Your task to perform on an android device: turn off translation in the chrome app Image 0: 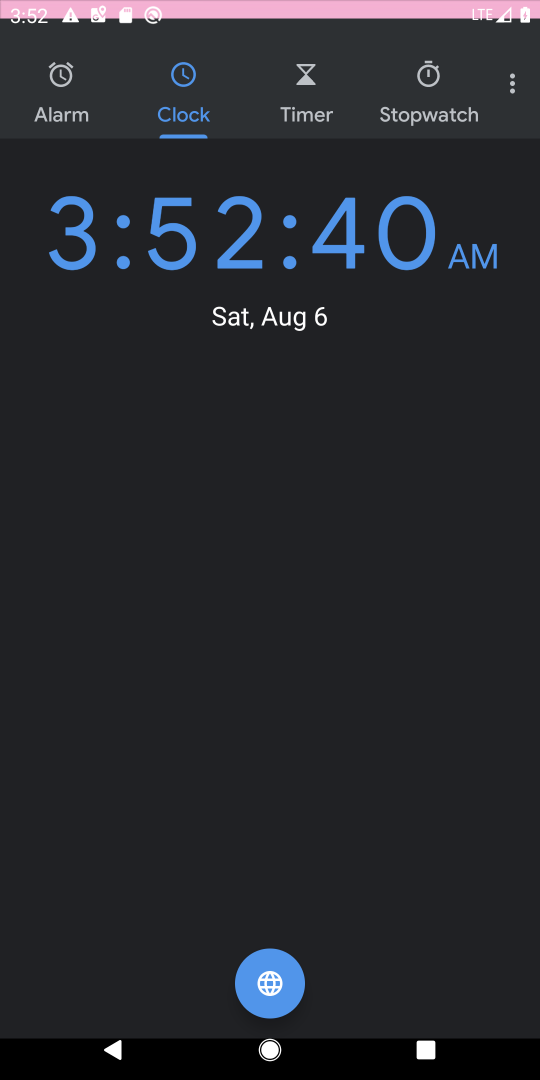
Step 0: press back button
Your task to perform on an android device: turn off translation in the chrome app Image 1: 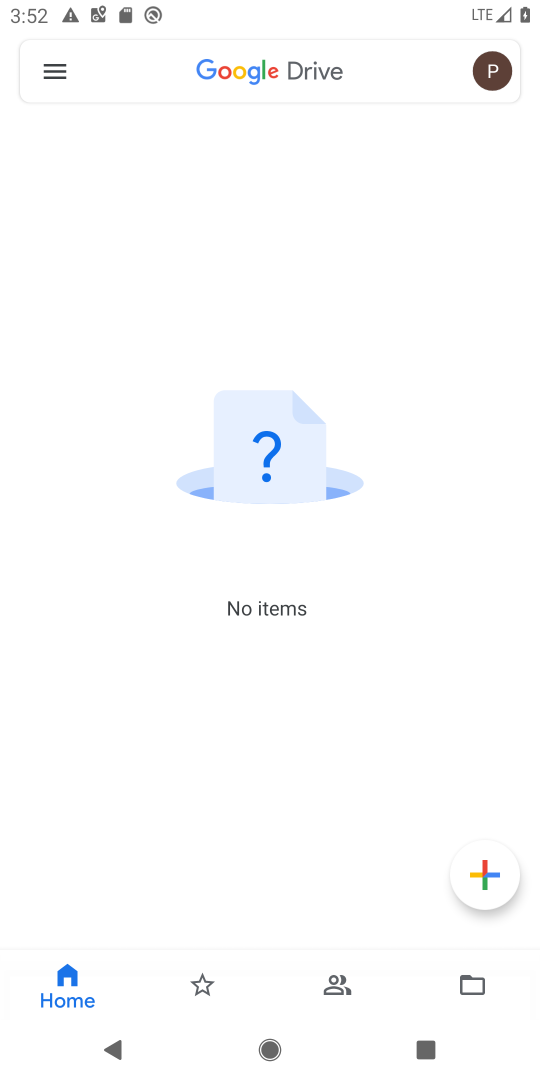
Step 1: press back button
Your task to perform on an android device: turn off translation in the chrome app Image 2: 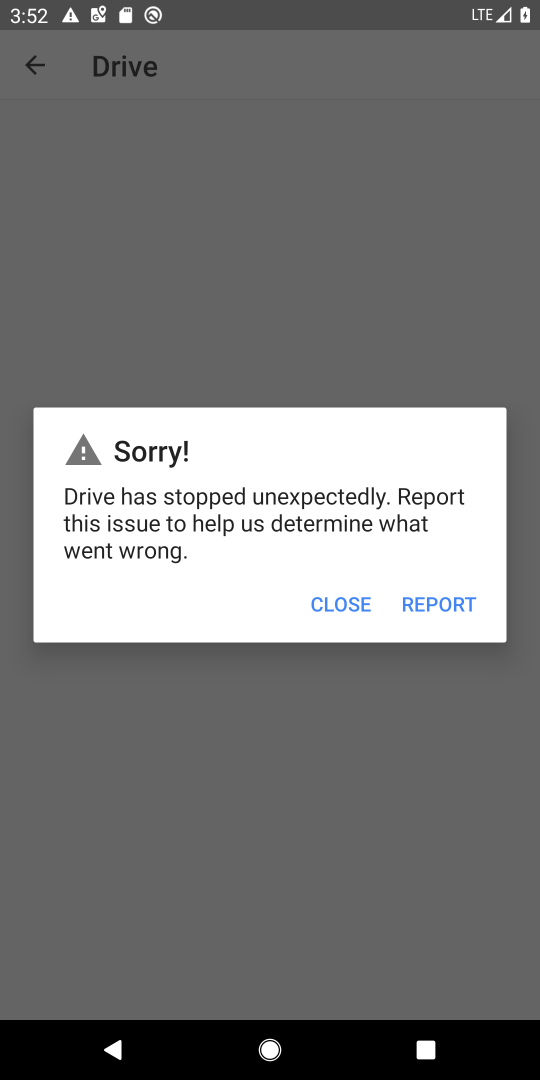
Step 2: press back button
Your task to perform on an android device: turn off translation in the chrome app Image 3: 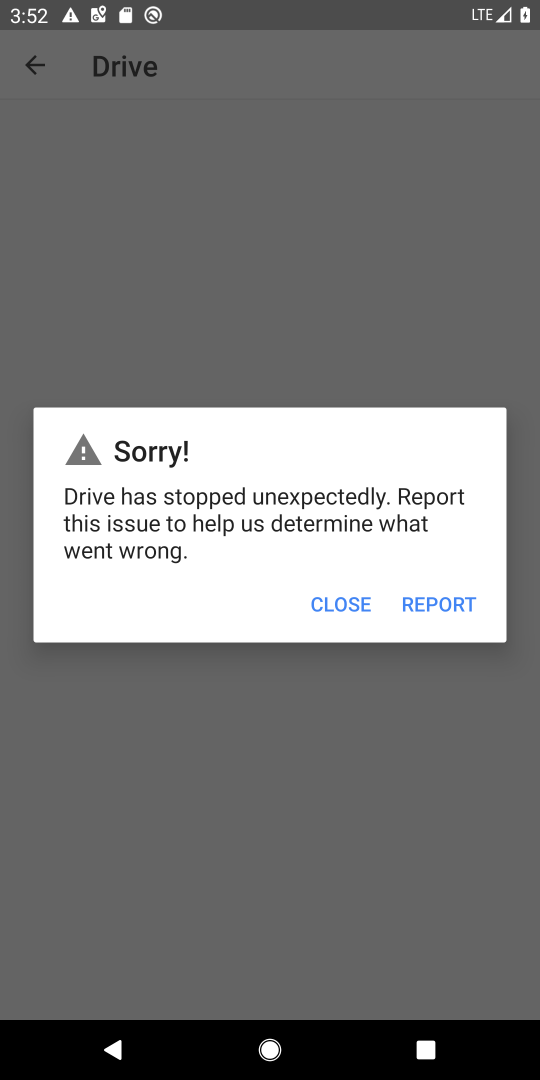
Step 3: press home button
Your task to perform on an android device: turn off translation in the chrome app Image 4: 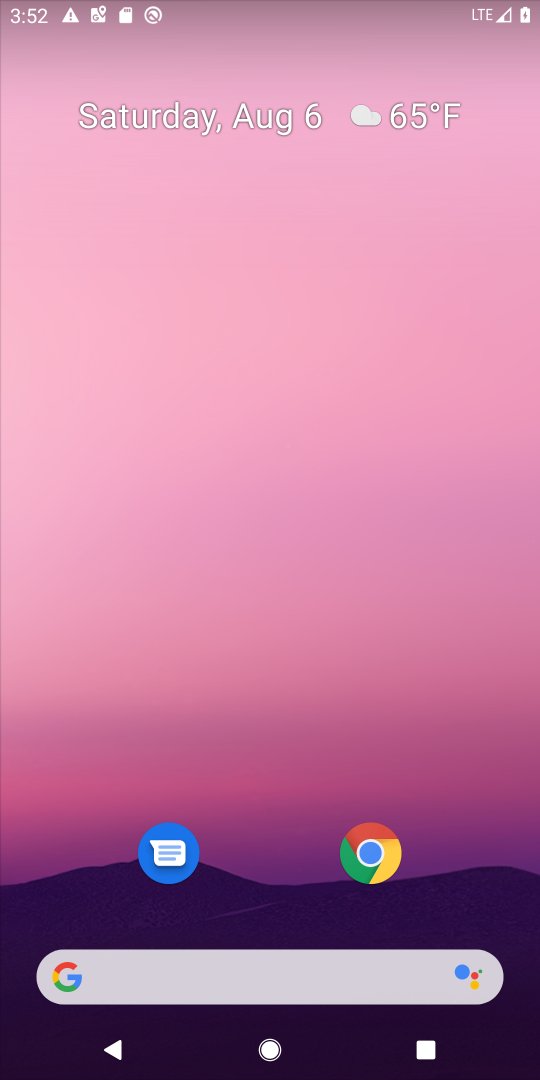
Step 4: click (387, 849)
Your task to perform on an android device: turn off translation in the chrome app Image 5: 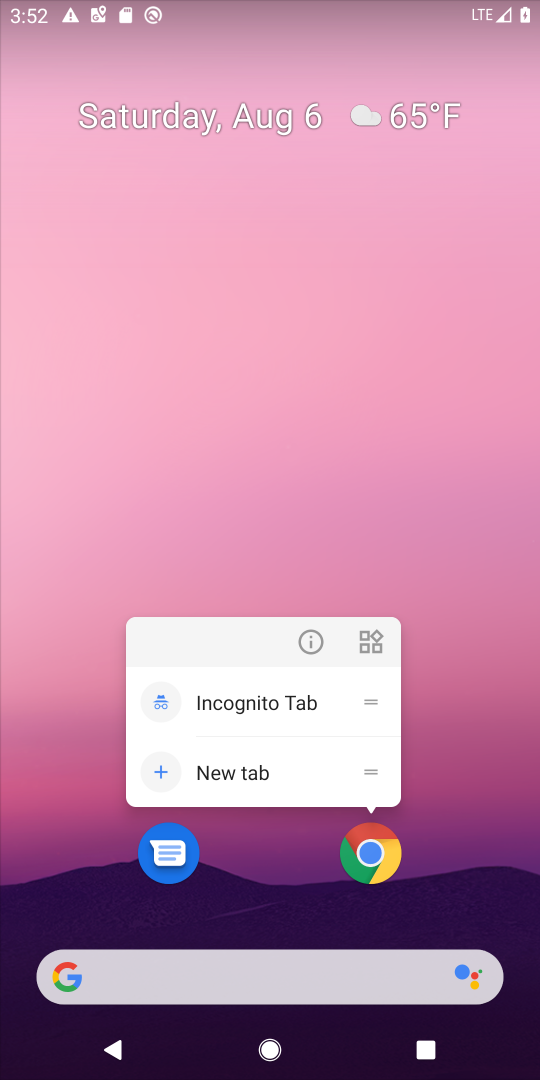
Step 5: click (381, 856)
Your task to perform on an android device: turn off translation in the chrome app Image 6: 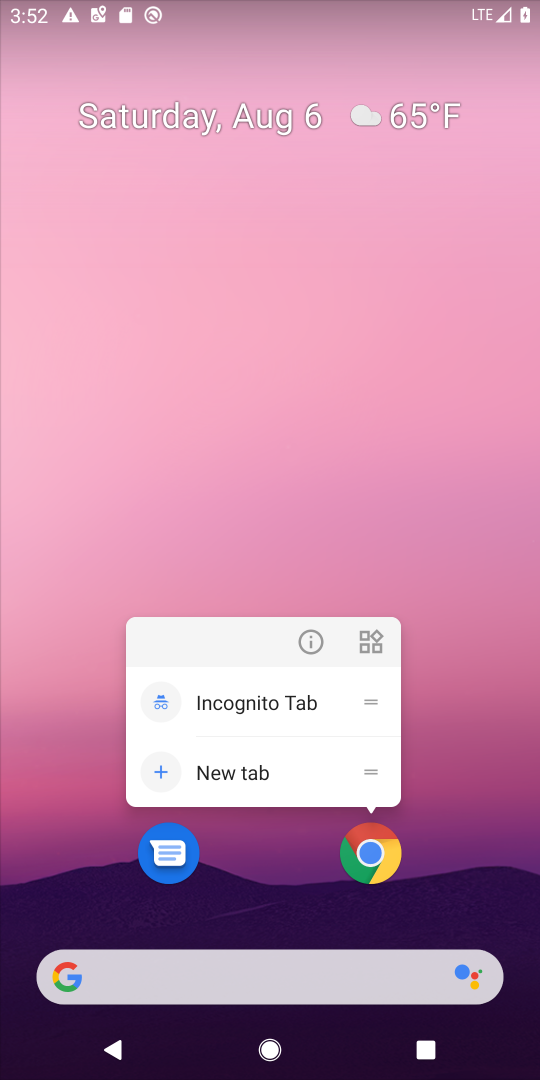
Step 6: click (372, 842)
Your task to perform on an android device: turn off translation in the chrome app Image 7: 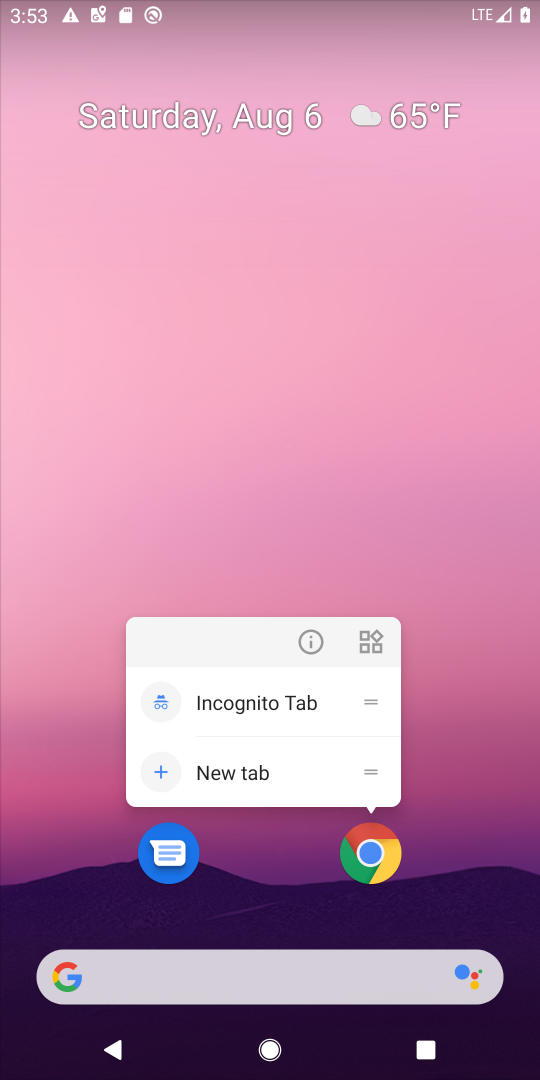
Step 7: click (367, 862)
Your task to perform on an android device: turn off translation in the chrome app Image 8: 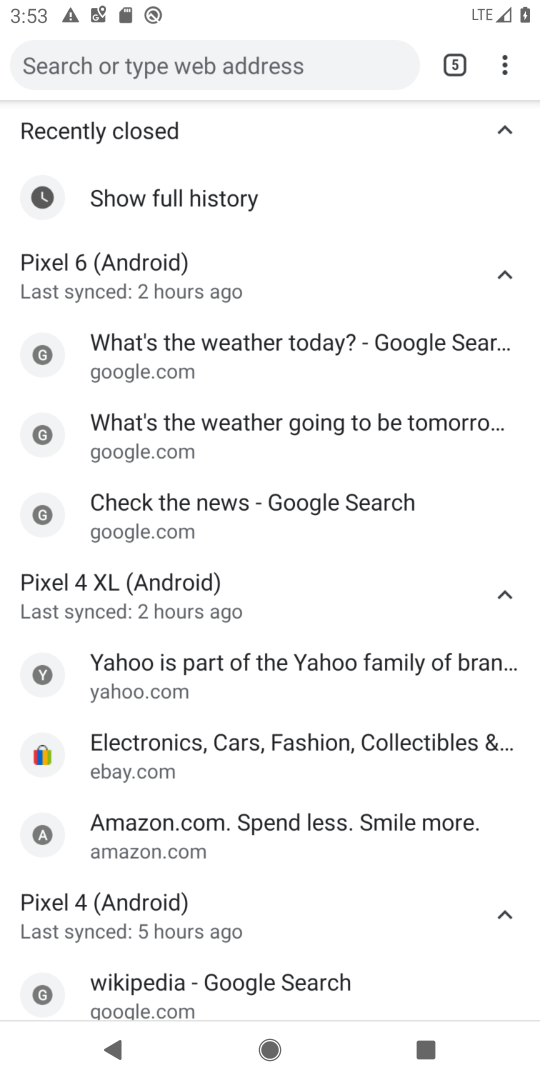
Step 8: click (367, 851)
Your task to perform on an android device: turn off translation in the chrome app Image 9: 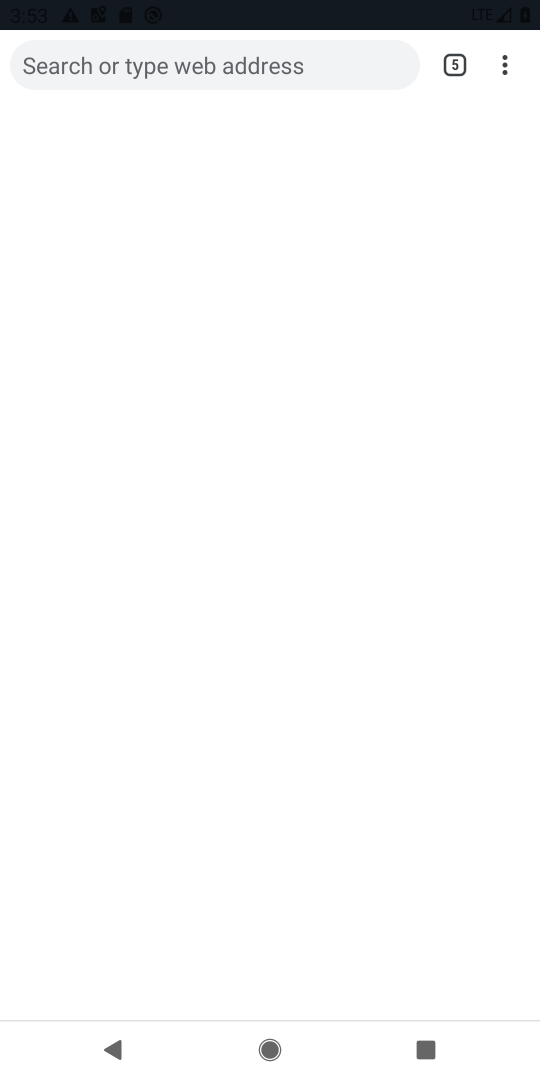
Step 9: press back button
Your task to perform on an android device: turn off translation in the chrome app Image 10: 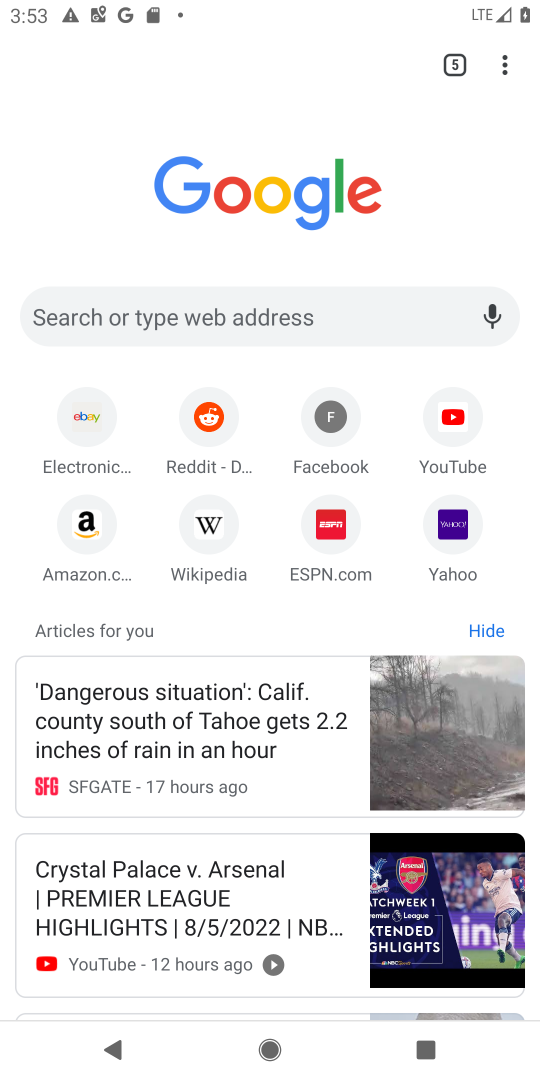
Step 10: drag from (498, 59) to (279, 555)
Your task to perform on an android device: turn off translation in the chrome app Image 11: 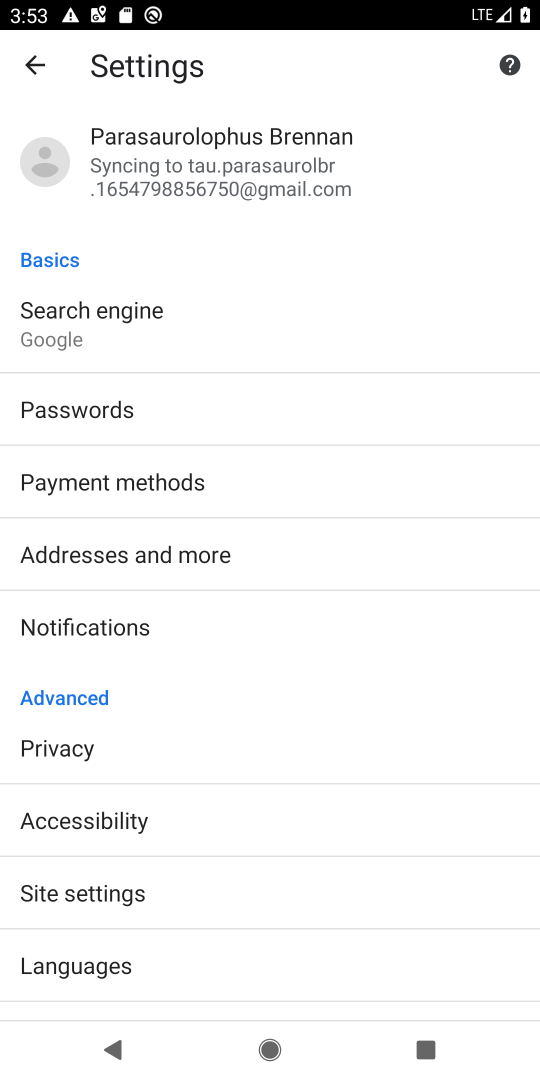
Step 11: click (137, 969)
Your task to perform on an android device: turn off translation in the chrome app Image 12: 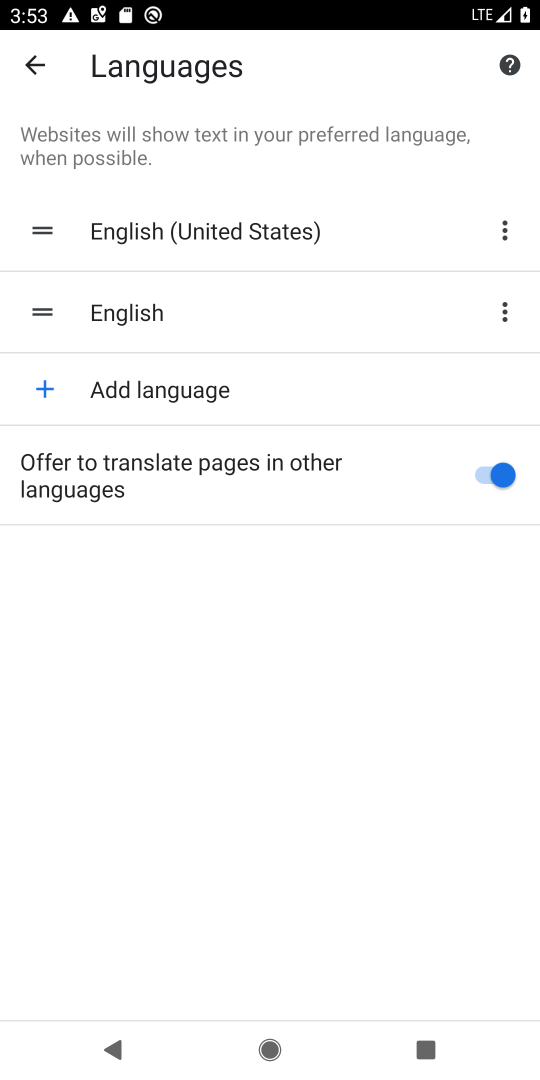
Step 12: click (500, 479)
Your task to perform on an android device: turn off translation in the chrome app Image 13: 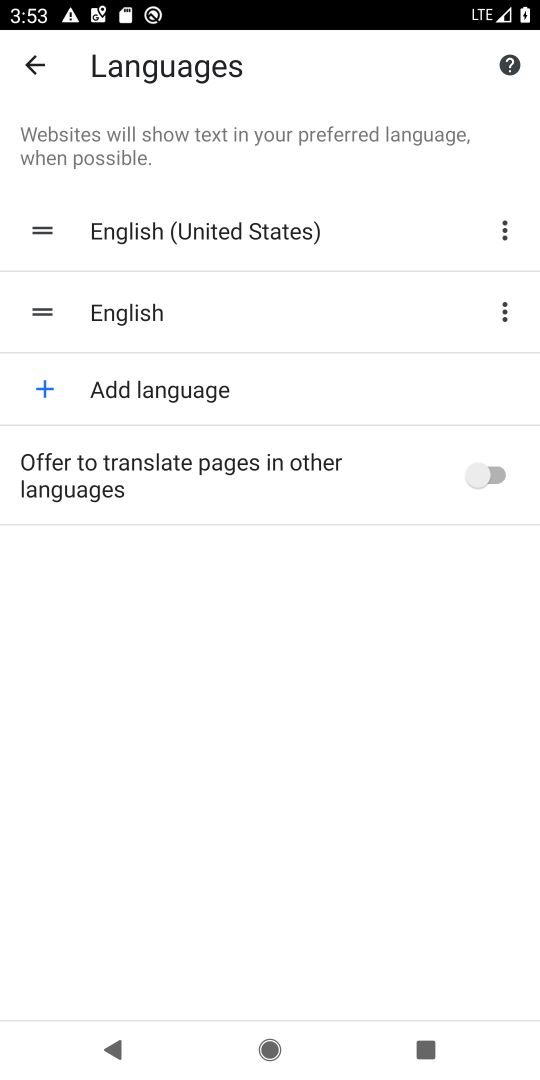
Step 13: task complete